Your task to perform on an android device: empty trash in the gmail app Image 0: 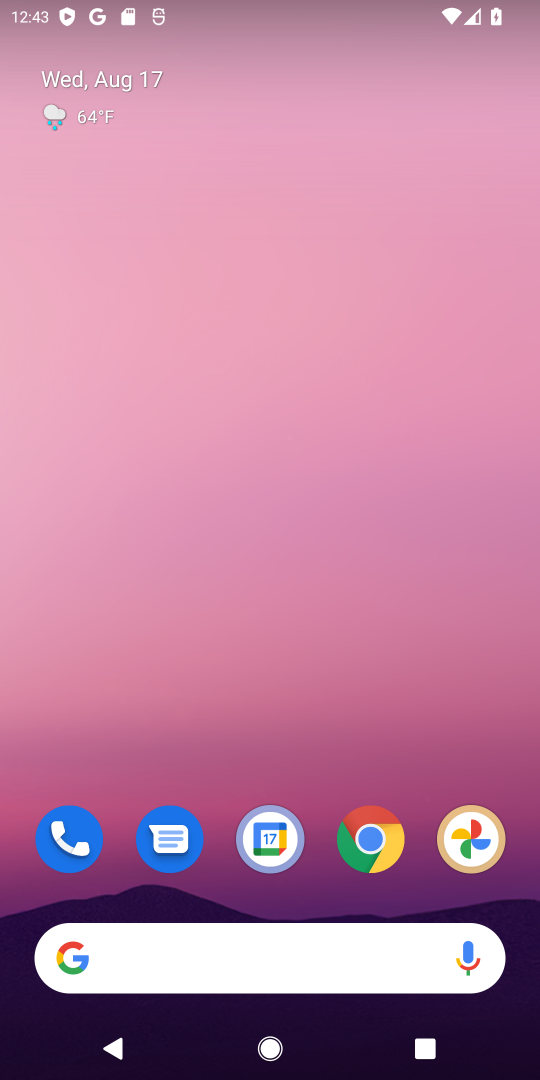
Step 0: drag from (235, 972) to (235, 269)
Your task to perform on an android device: empty trash in the gmail app Image 1: 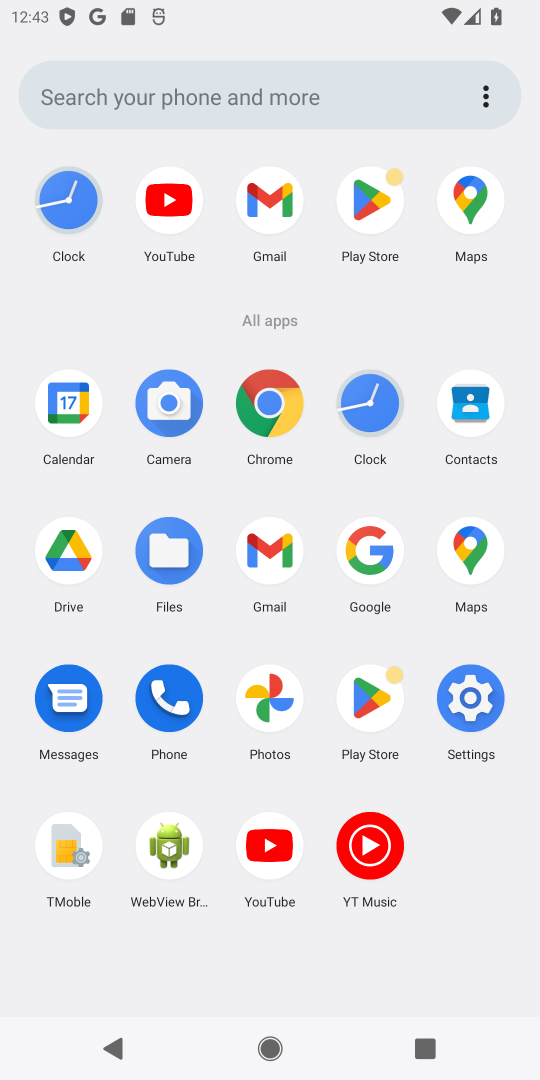
Step 1: click (272, 203)
Your task to perform on an android device: empty trash in the gmail app Image 2: 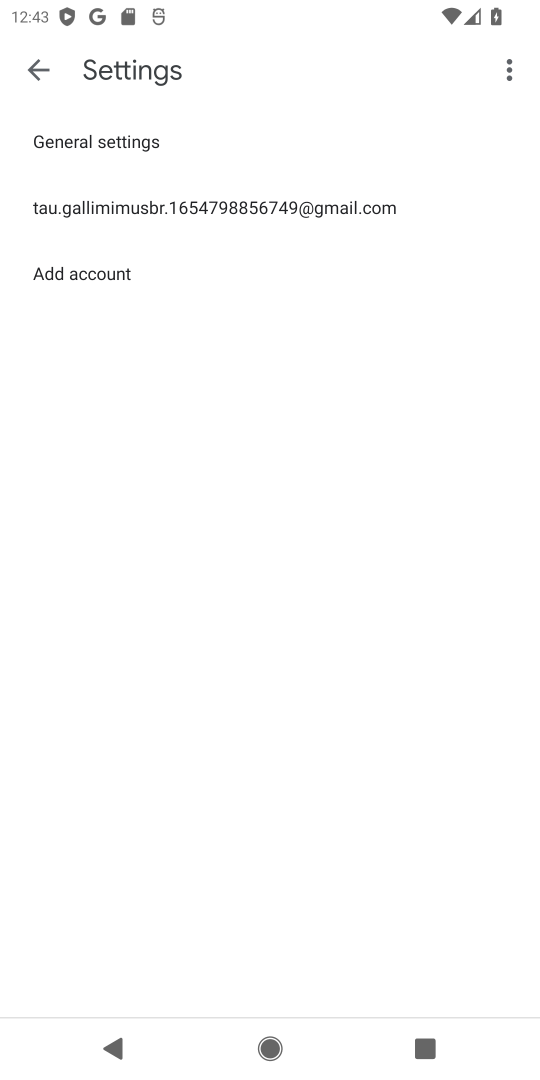
Step 2: press back button
Your task to perform on an android device: empty trash in the gmail app Image 3: 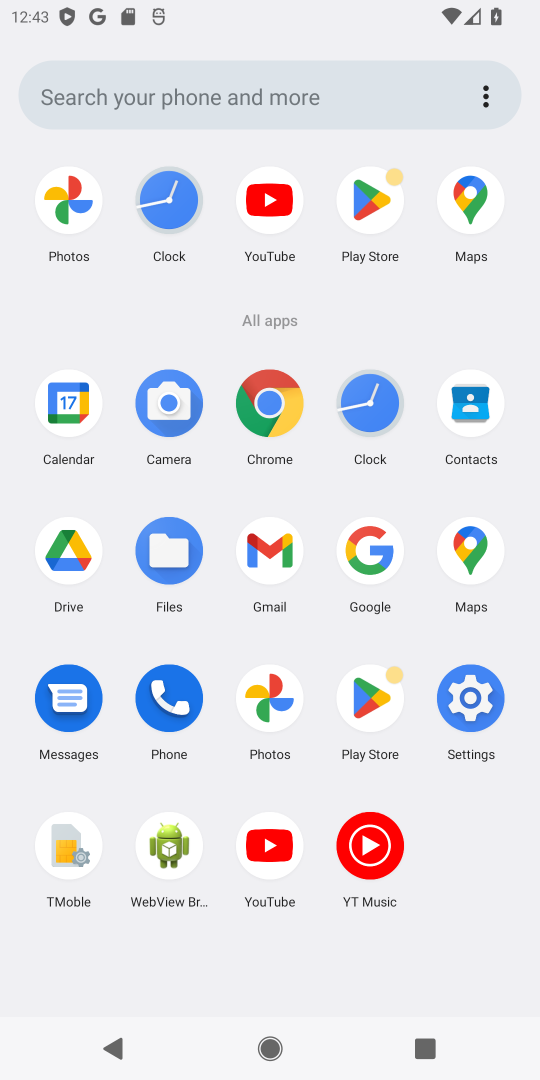
Step 3: click (273, 550)
Your task to perform on an android device: empty trash in the gmail app Image 4: 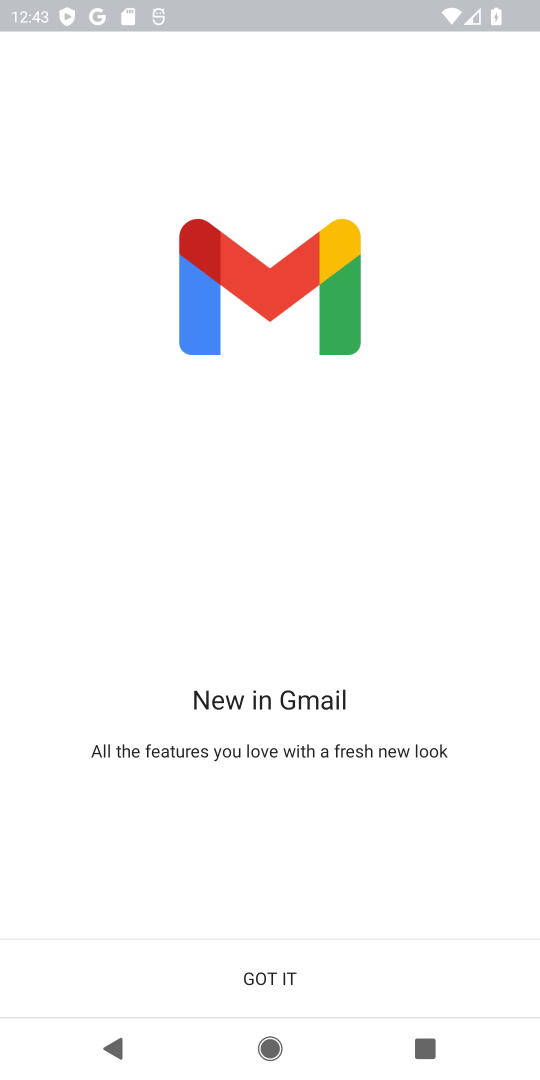
Step 4: click (283, 984)
Your task to perform on an android device: empty trash in the gmail app Image 5: 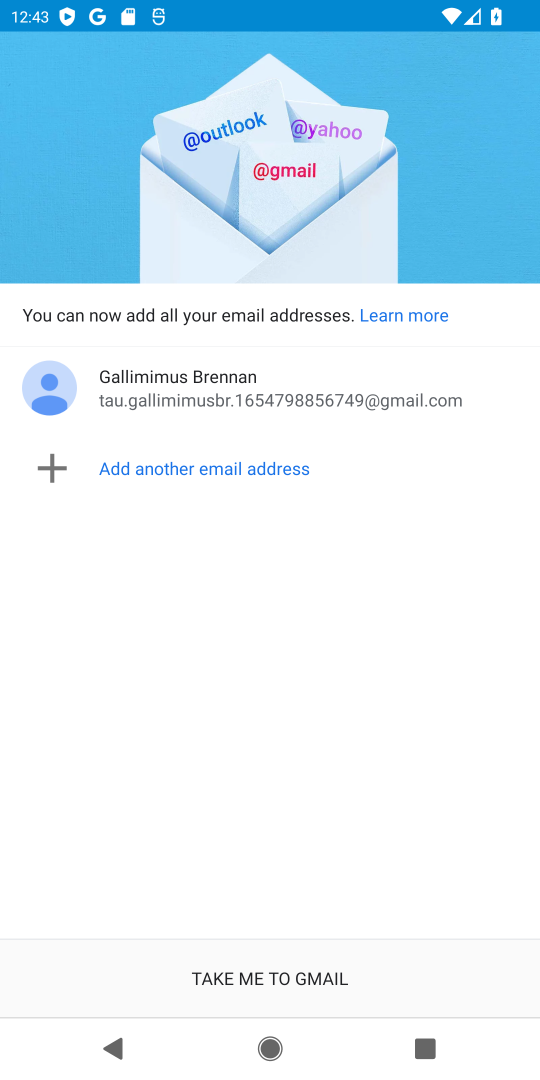
Step 5: click (283, 984)
Your task to perform on an android device: empty trash in the gmail app Image 6: 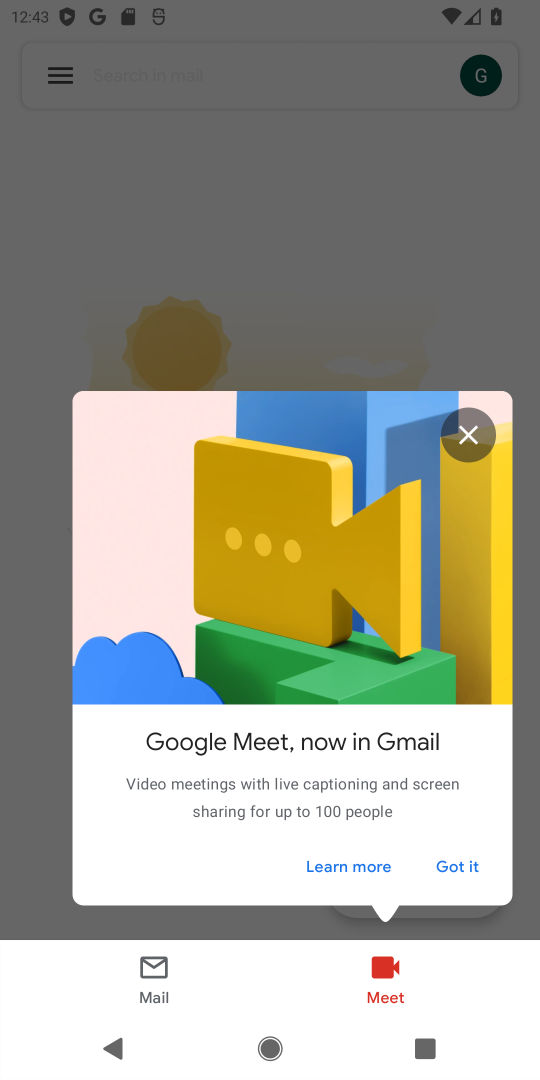
Step 6: click (459, 874)
Your task to perform on an android device: empty trash in the gmail app Image 7: 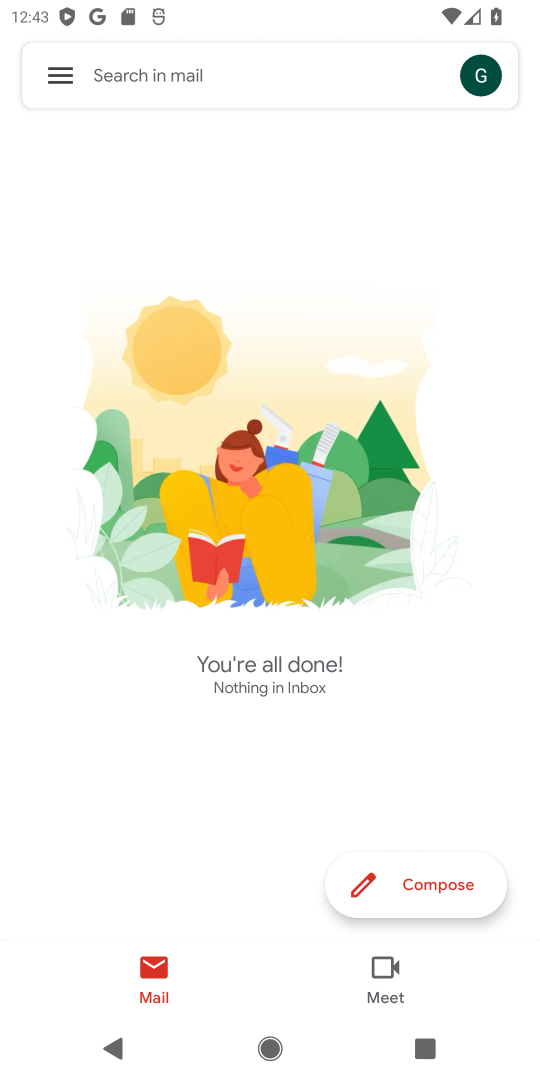
Step 7: click (67, 84)
Your task to perform on an android device: empty trash in the gmail app Image 8: 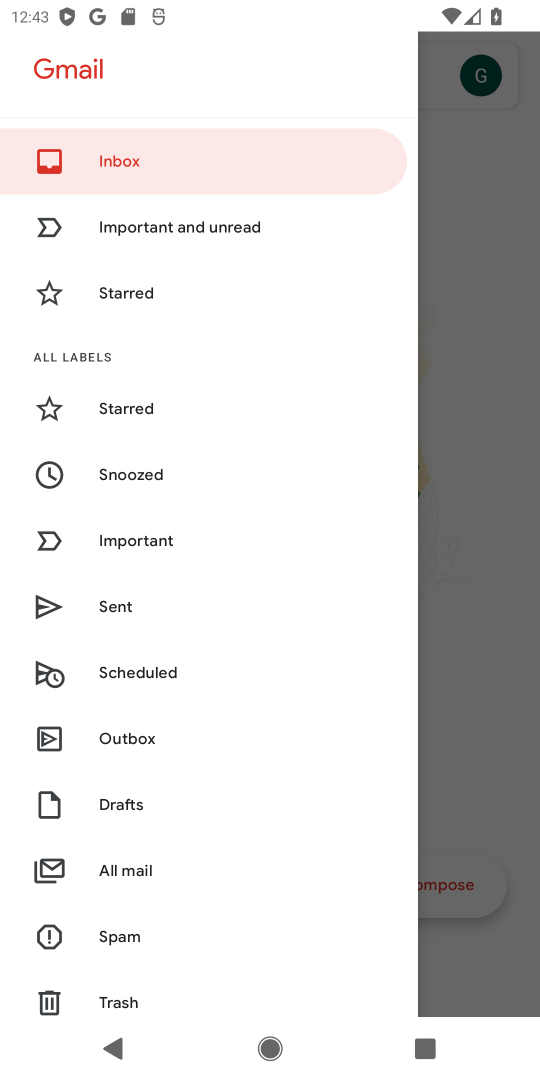
Step 8: click (132, 1001)
Your task to perform on an android device: empty trash in the gmail app Image 9: 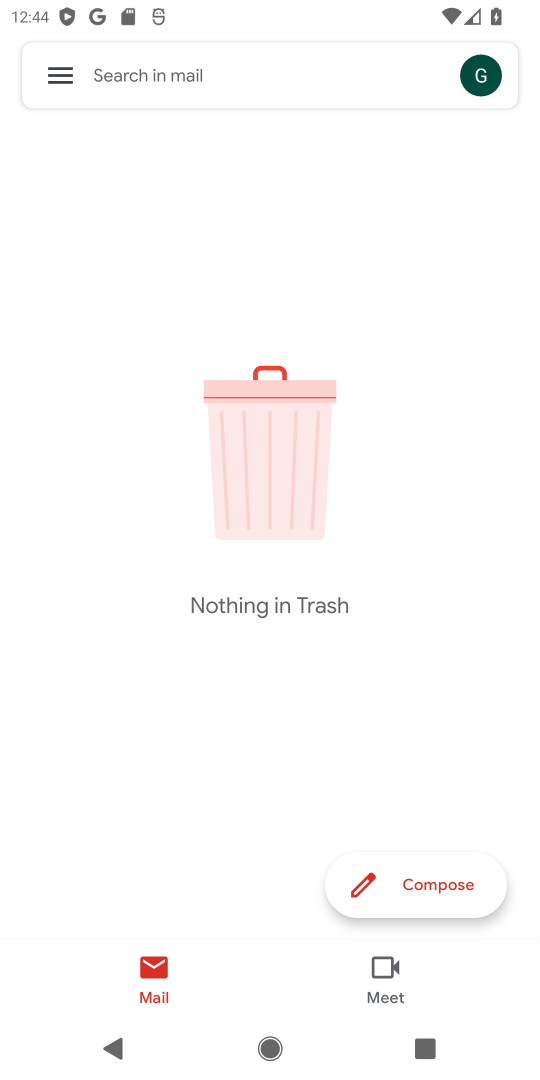
Step 9: task complete